Your task to perform on an android device: Open the calendar and show me this week's events? Image 0: 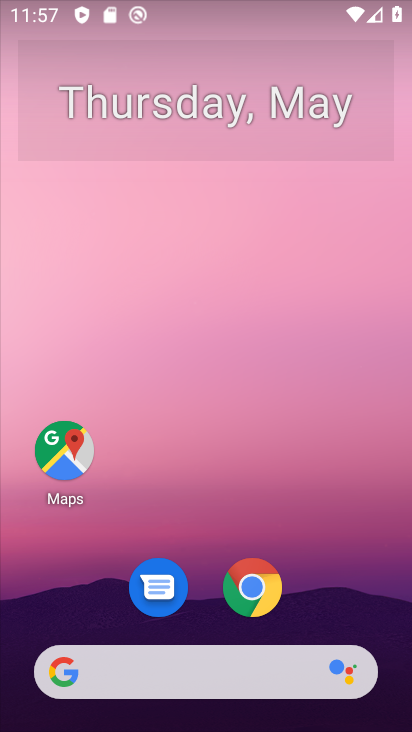
Step 0: drag from (223, 587) to (319, 72)
Your task to perform on an android device: Open the calendar and show me this week's events? Image 1: 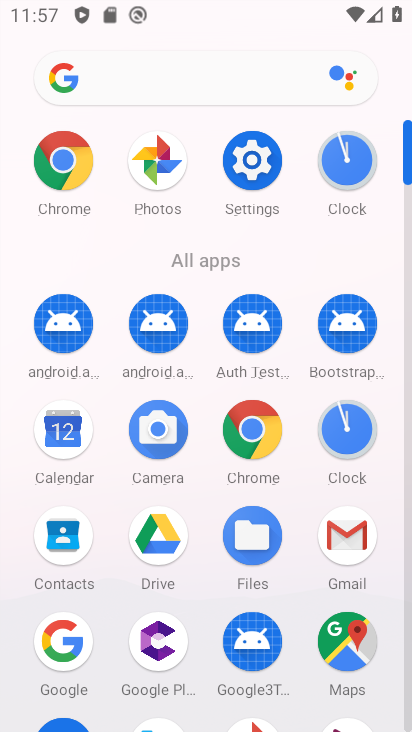
Step 1: click (65, 443)
Your task to perform on an android device: Open the calendar and show me this week's events? Image 2: 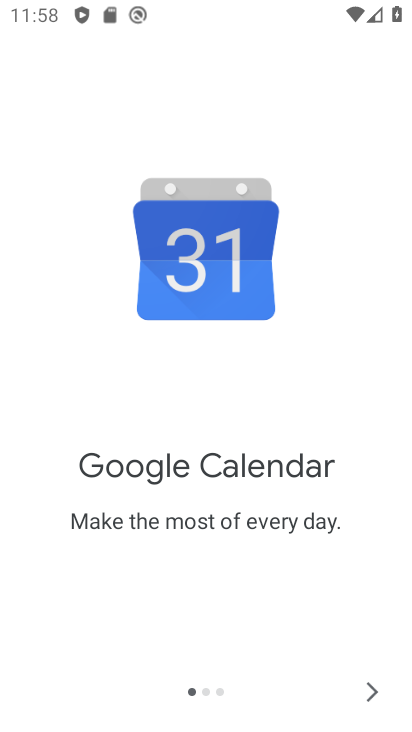
Step 2: click (372, 696)
Your task to perform on an android device: Open the calendar and show me this week's events? Image 3: 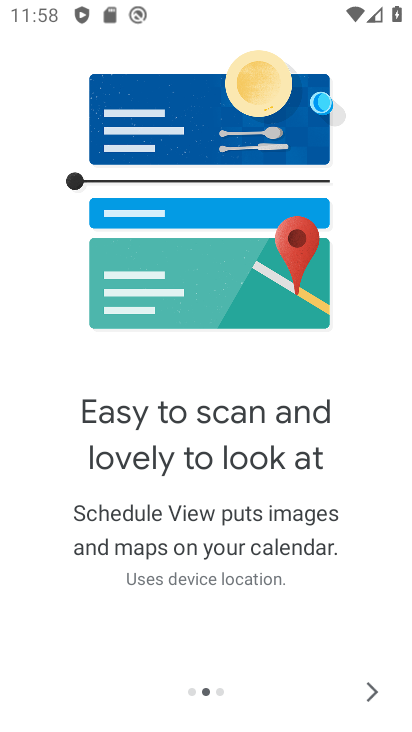
Step 3: click (373, 689)
Your task to perform on an android device: Open the calendar and show me this week's events? Image 4: 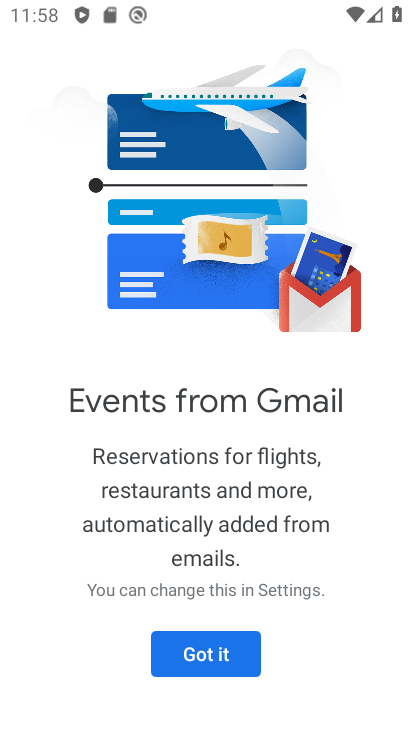
Step 4: click (227, 662)
Your task to perform on an android device: Open the calendar and show me this week's events? Image 5: 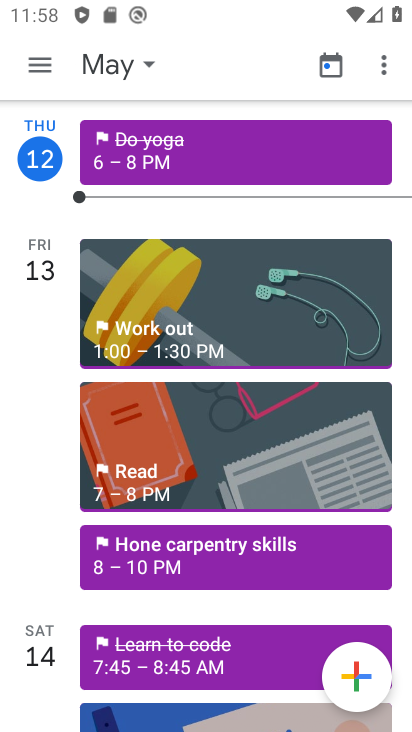
Step 5: drag from (175, 642) to (215, 227)
Your task to perform on an android device: Open the calendar and show me this week's events? Image 6: 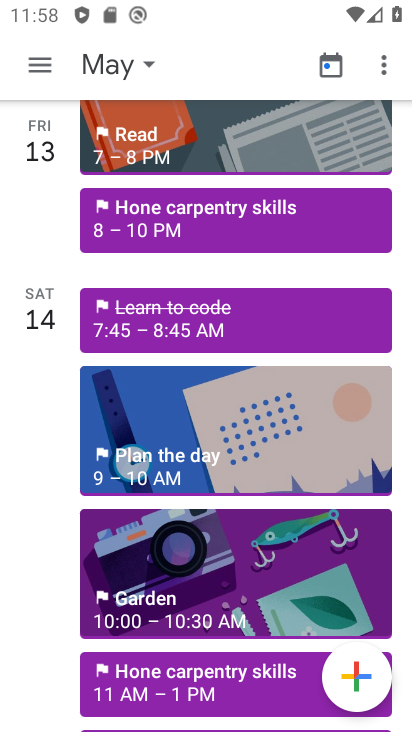
Step 6: click (145, 579)
Your task to perform on an android device: Open the calendar and show me this week's events? Image 7: 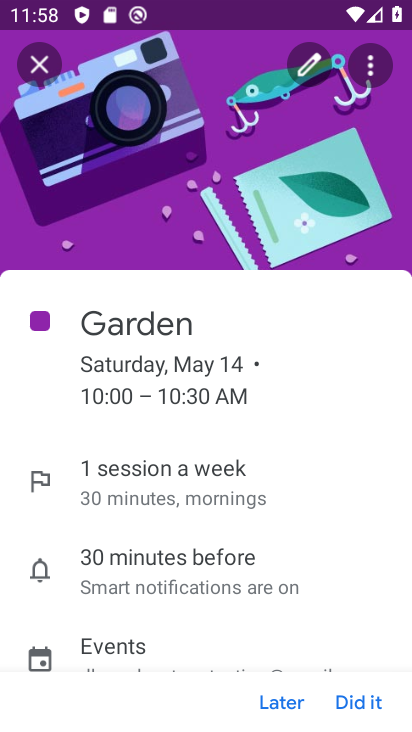
Step 7: task complete